Your task to perform on an android device: Open Google Chrome and click the shortcut for Amazon.com Image 0: 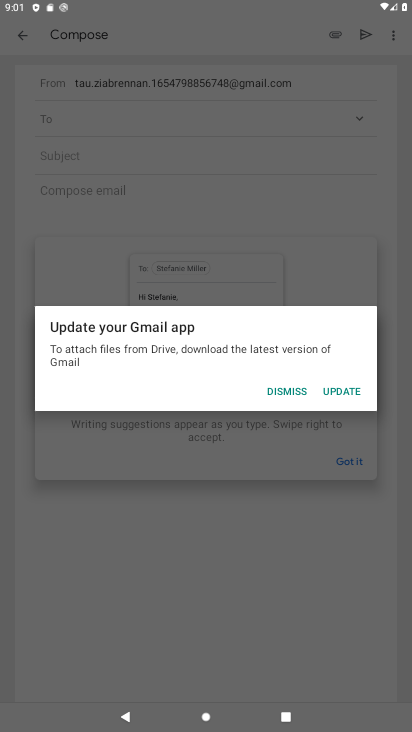
Step 0: press home button
Your task to perform on an android device: Open Google Chrome and click the shortcut for Amazon.com Image 1: 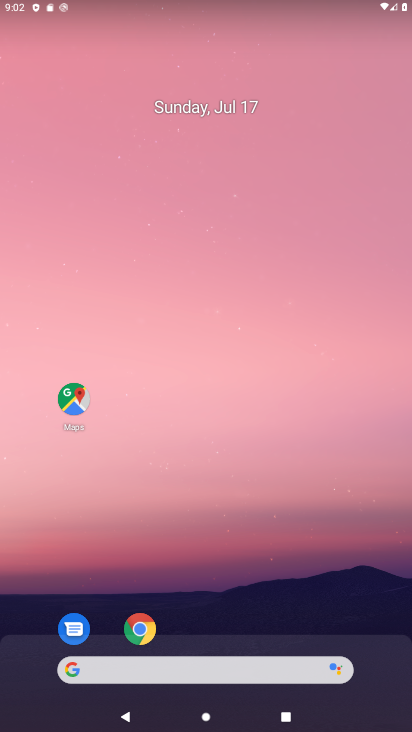
Step 1: click (138, 629)
Your task to perform on an android device: Open Google Chrome and click the shortcut for Amazon.com Image 2: 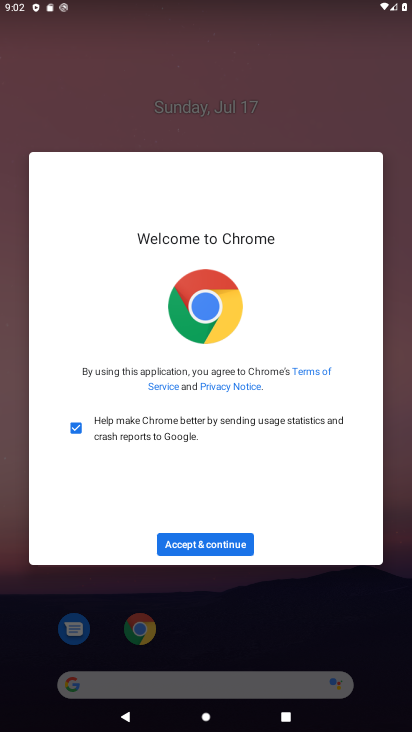
Step 2: click (199, 542)
Your task to perform on an android device: Open Google Chrome and click the shortcut for Amazon.com Image 3: 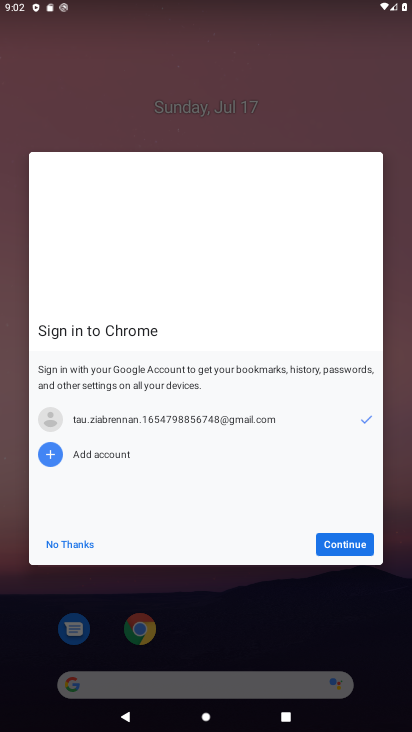
Step 3: click (341, 535)
Your task to perform on an android device: Open Google Chrome and click the shortcut for Amazon.com Image 4: 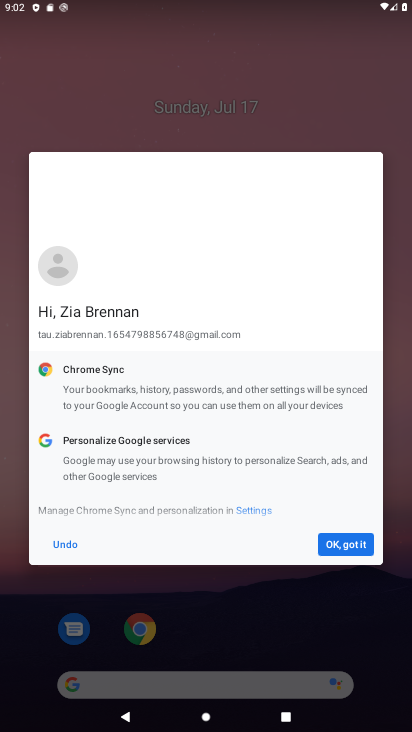
Step 4: click (336, 546)
Your task to perform on an android device: Open Google Chrome and click the shortcut for Amazon.com Image 5: 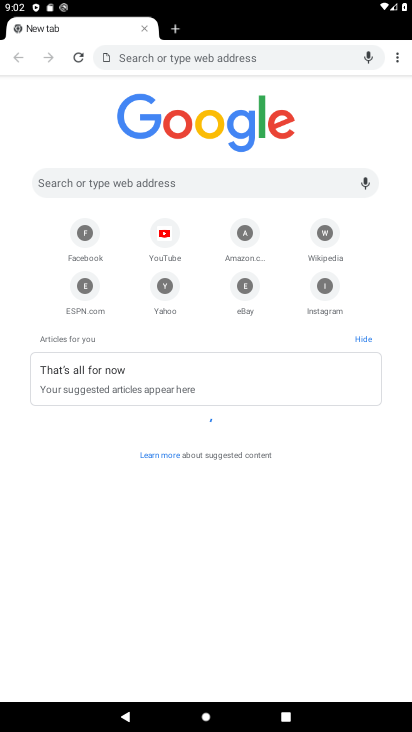
Step 5: click (254, 238)
Your task to perform on an android device: Open Google Chrome and click the shortcut for Amazon.com Image 6: 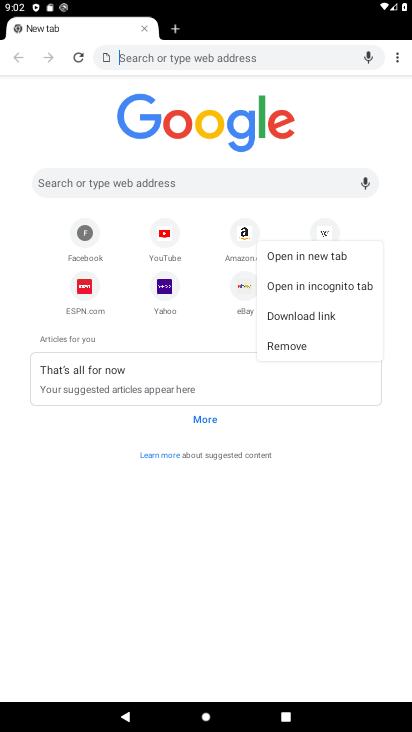
Step 6: click (238, 241)
Your task to perform on an android device: Open Google Chrome and click the shortcut for Amazon.com Image 7: 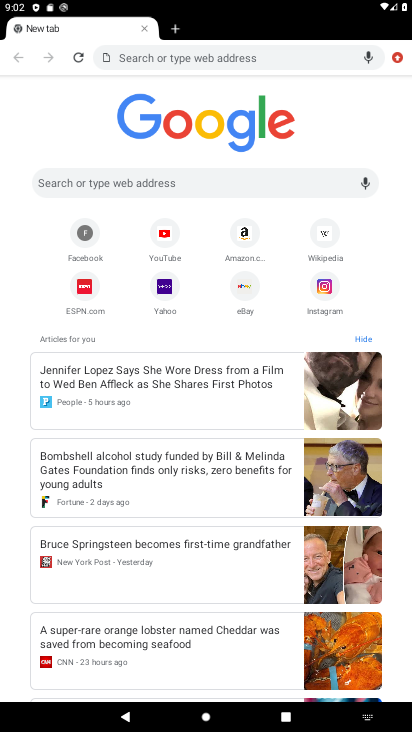
Step 7: click (243, 234)
Your task to perform on an android device: Open Google Chrome and click the shortcut for Amazon.com Image 8: 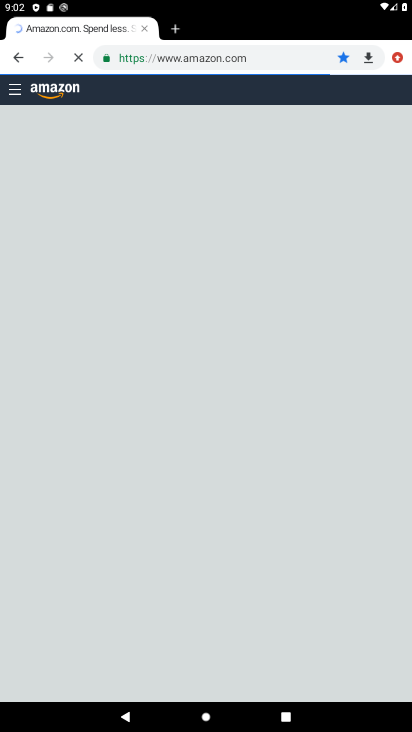
Step 8: task complete